Your task to perform on an android device: all mails in gmail Image 0: 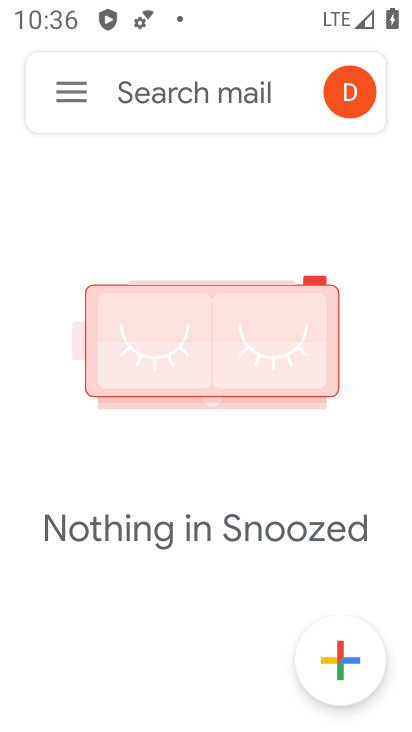
Step 0: press back button
Your task to perform on an android device: all mails in gmail Image 1: 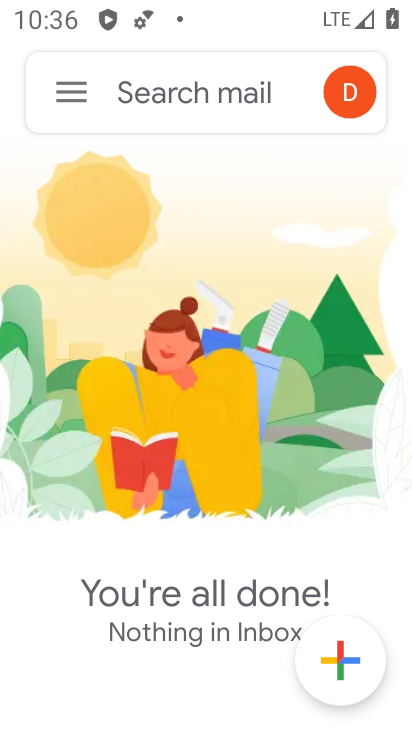
Step 1: press back button
Your task to perform on an android device: all mails in gmail Image 2: 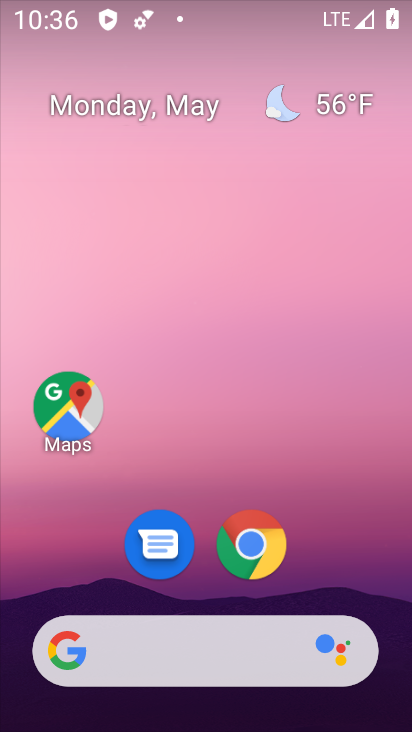
Step 2: drag from (333, 558) to (251, 98)
Your task to perform on an android device: all mails in gmail Image 3: 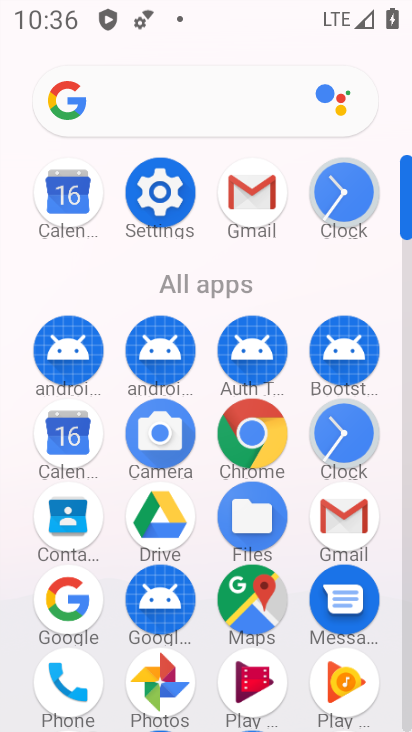
Step 3: click (250, 189)
Your task to perform on an android device: all mails in gmail Image 4: 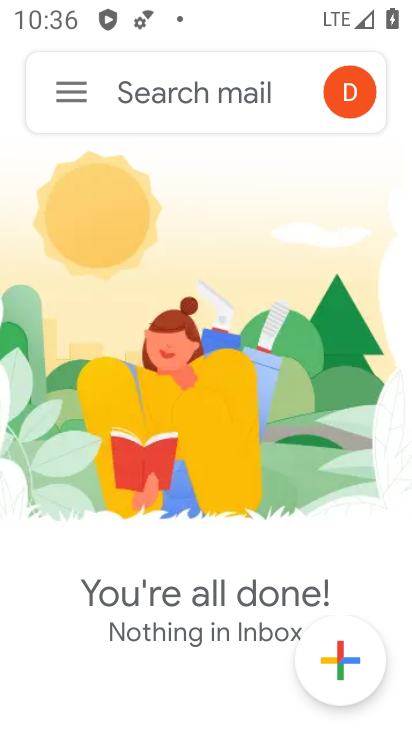
Step 4: click (77, 93)
Your task to perform on an android device: all mails in gmail Image 5: 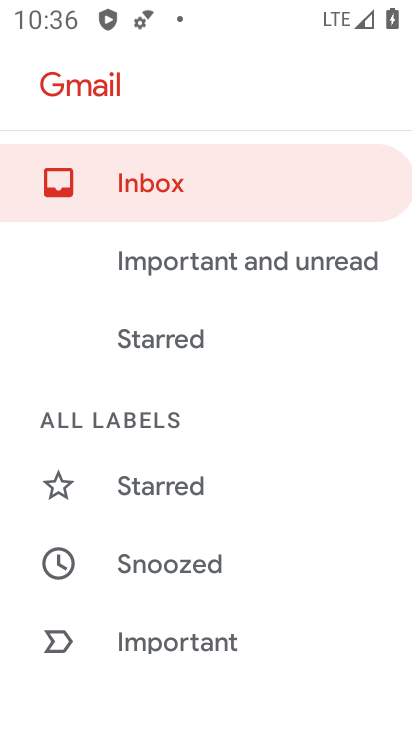
Step 5: drag from (142, 477) to (191, 359)
Your task to perform on an android device: all mails in gmail Image 6: 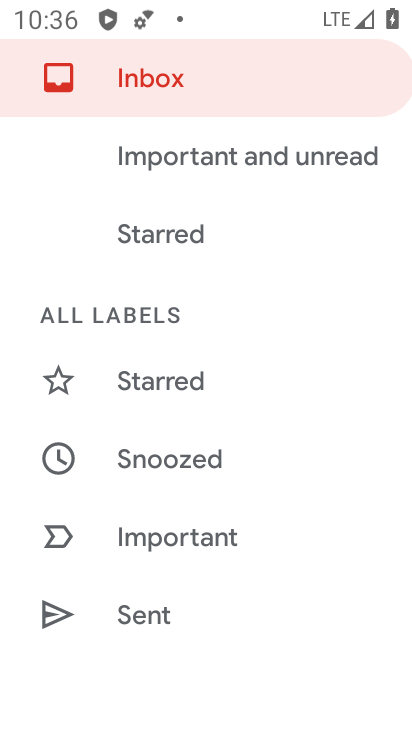
Step 6: drag from (148, 567) to (212, 442)
Your task to perform on an android device: all mails in gmail Image 7: 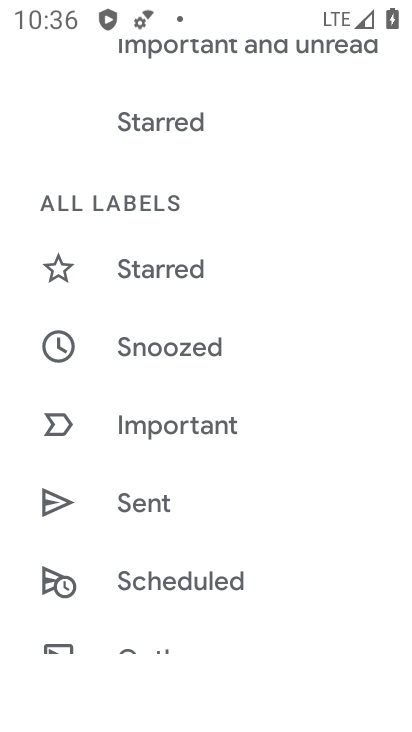
Step 7: drag from (154, 623) to (216, 462)
Your task to perform on an android device: all mails in gmail Image 8: 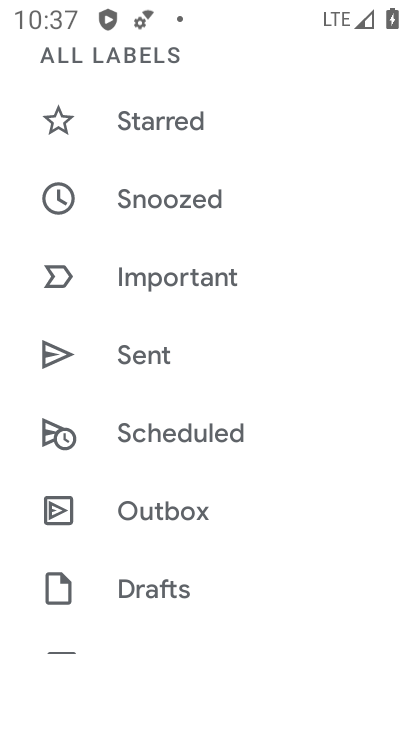
Step 8: drag from (172, 567) to (247, 432)
Your task to perform on an android device: all mails in gmail Image 9: 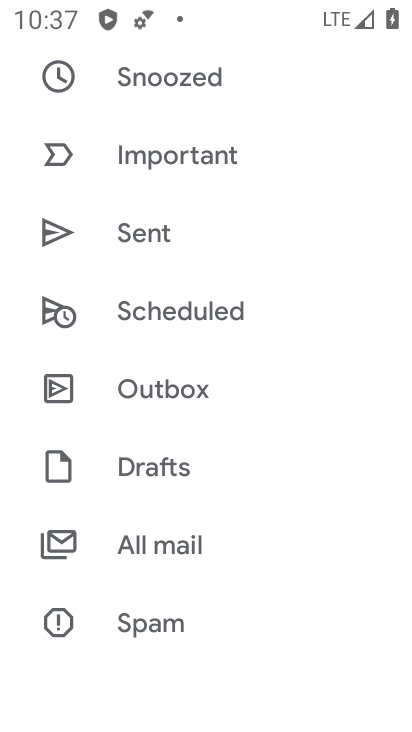
Step 9: click (173, 549)
Your task to perform on an android device: all mails in gmail Image 10: 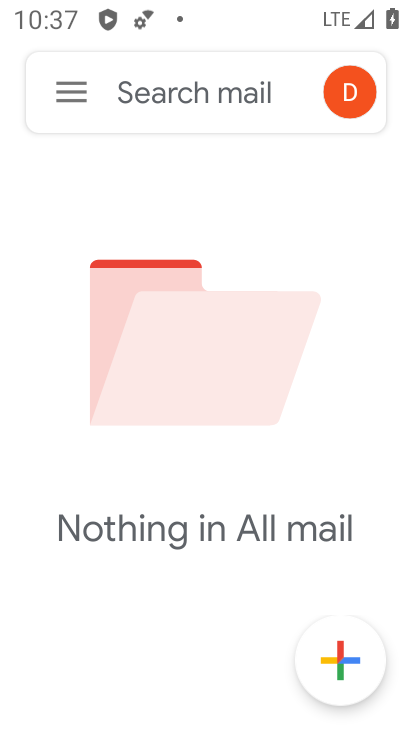
Step 10: task complete